Your task to perform on an android device: change the clock display to digital Image 0: 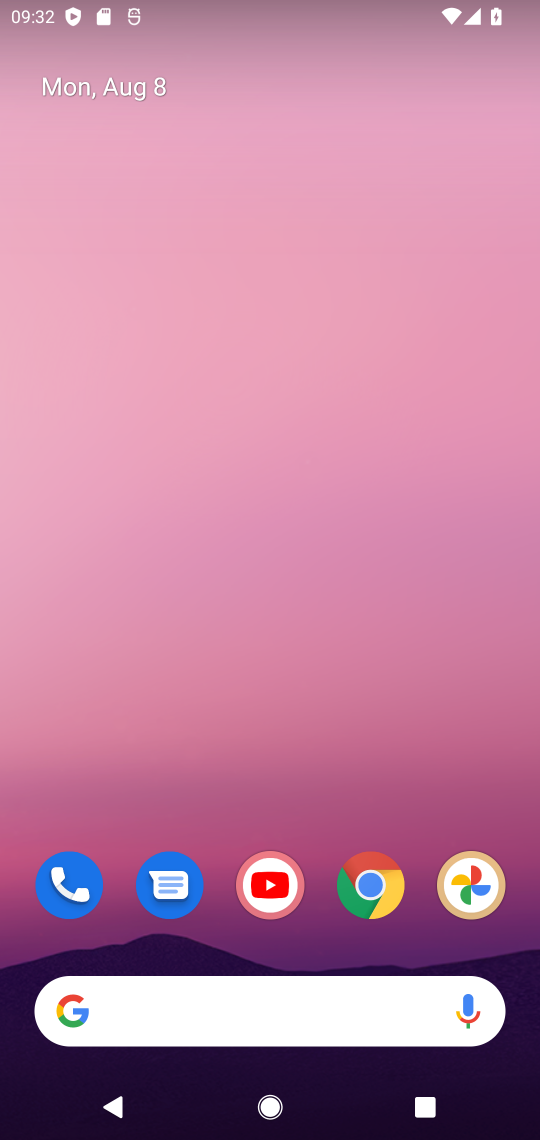
Step 0: drag from (233, 674) to (255, 228)
Your task to perform on an android device: change the clock display to digital Image 1: 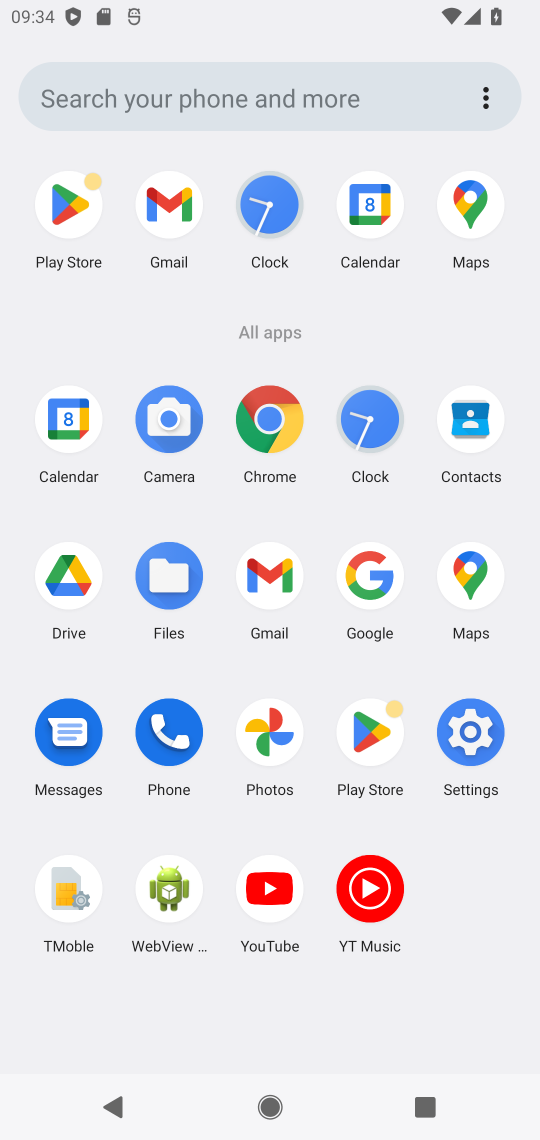
Step 1: click (387, 439)
Your task to perform on an android device: change the clock display to digital Image 2: 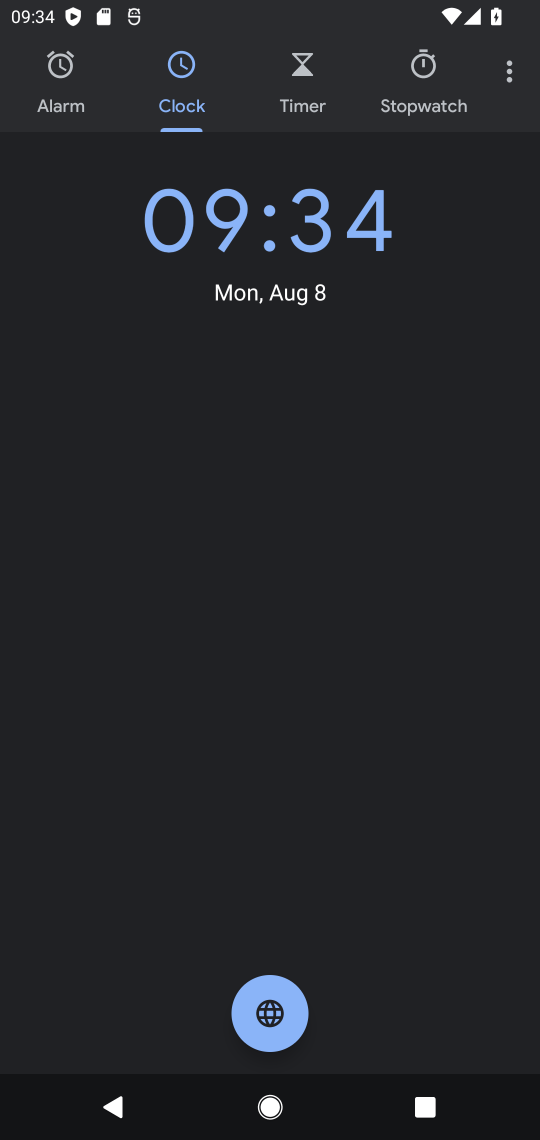
Step 2: click (500, 80)
Your task to perform on an android device: change the clock display to digital Image 3: 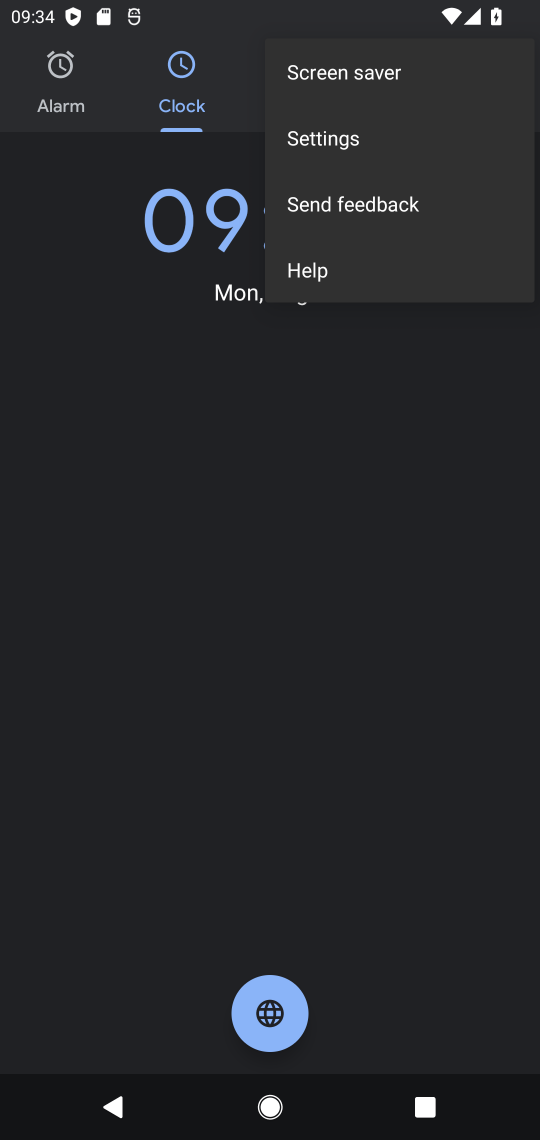
Step 3: click (359, 144)
Your task to perform on an android device: change the clock display to digital Image 4: 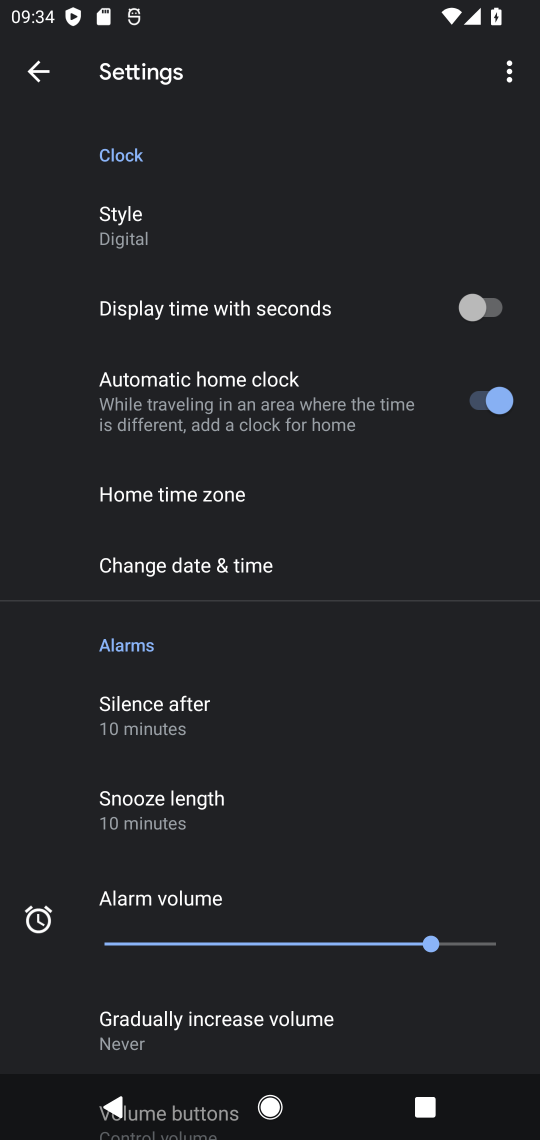
Step 4: click (147, 251)
Your task to perform on an android device: change the clock display to digital Image 5: 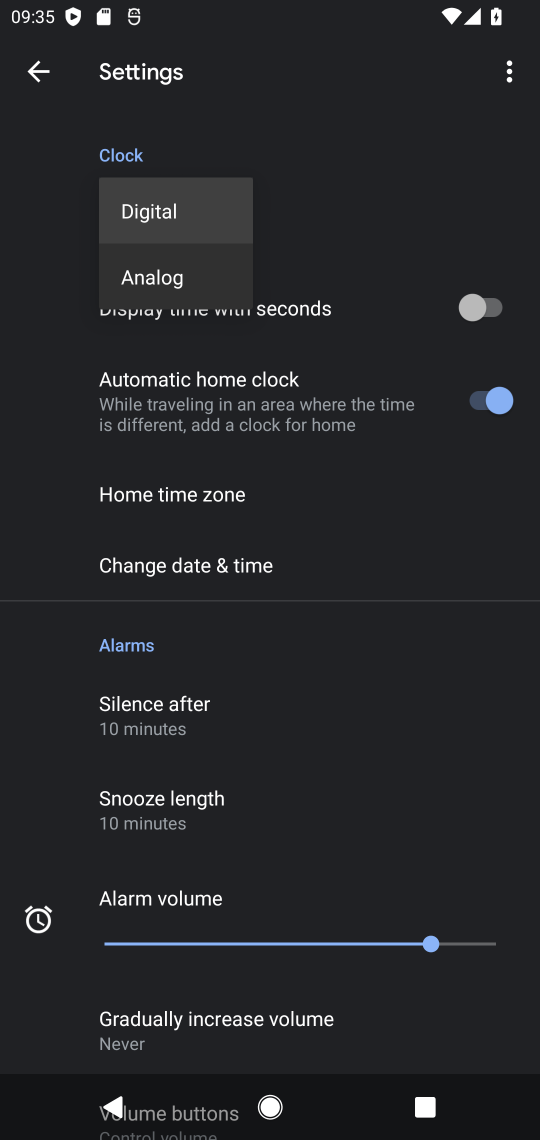
Step 5: click (147, 239)
Your task to perform on an android device: change the clock display to digital Image 6: 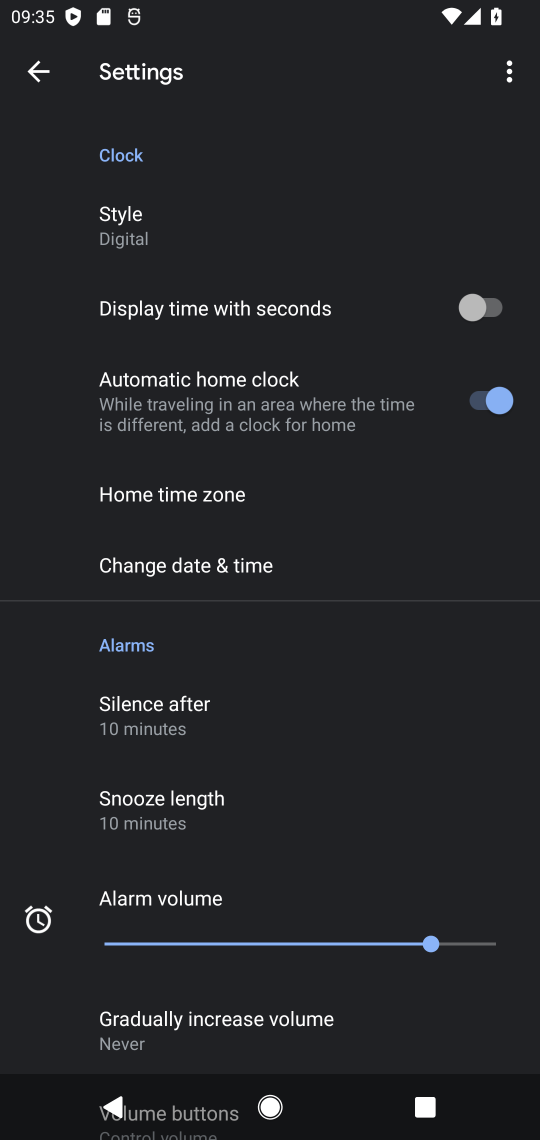
Step 6: press home button
Your task to perform on an android device: change the clock display to digital Image 7: 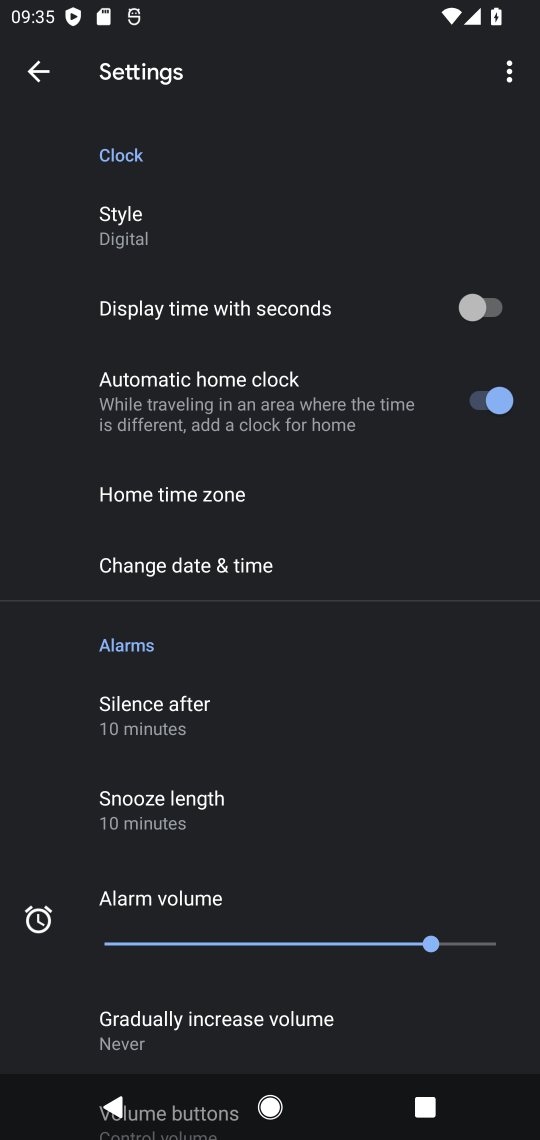
Step 7: press home button
Your task to perform on an android device: change the clock display to digital Image 8: 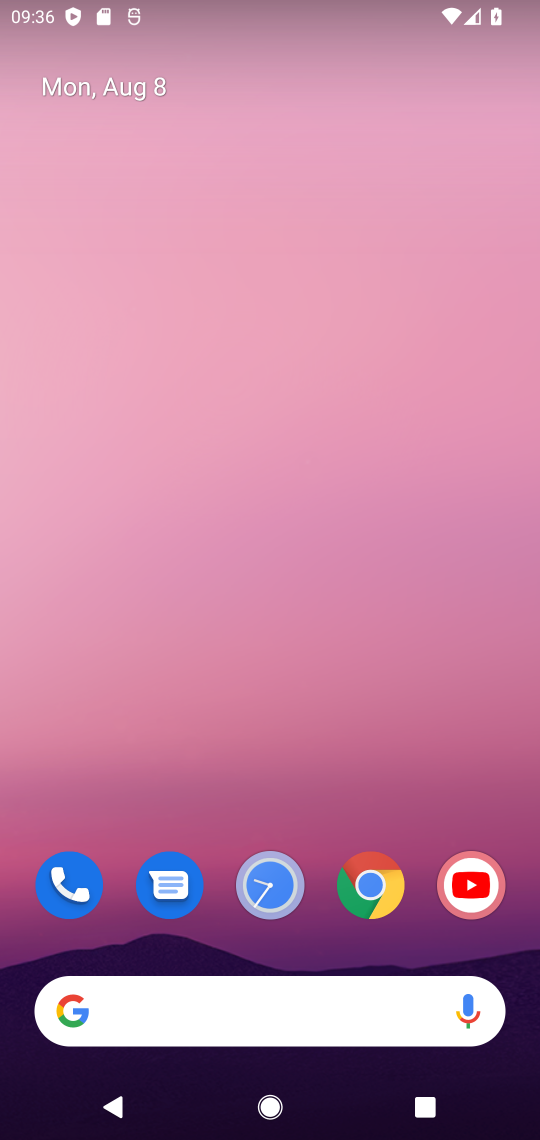
Step 8: drag from (201, 733) to (344, 27)
Your task to perform on an android device: change the clock display to digital Image 9: 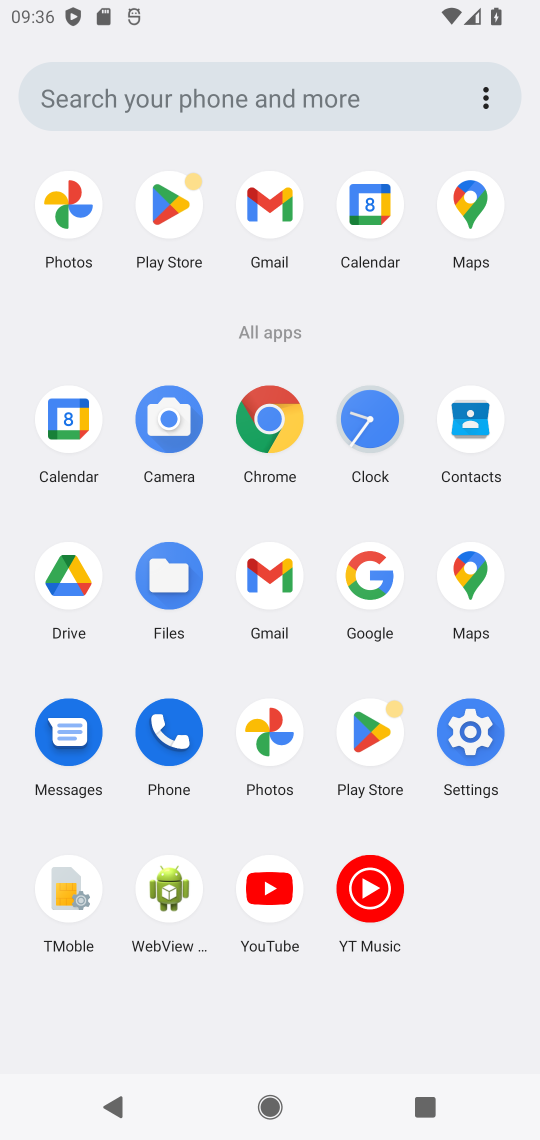
Step 9: click (376, 439)
Your task to perform on an android device: change the clock display to digital Image 10: 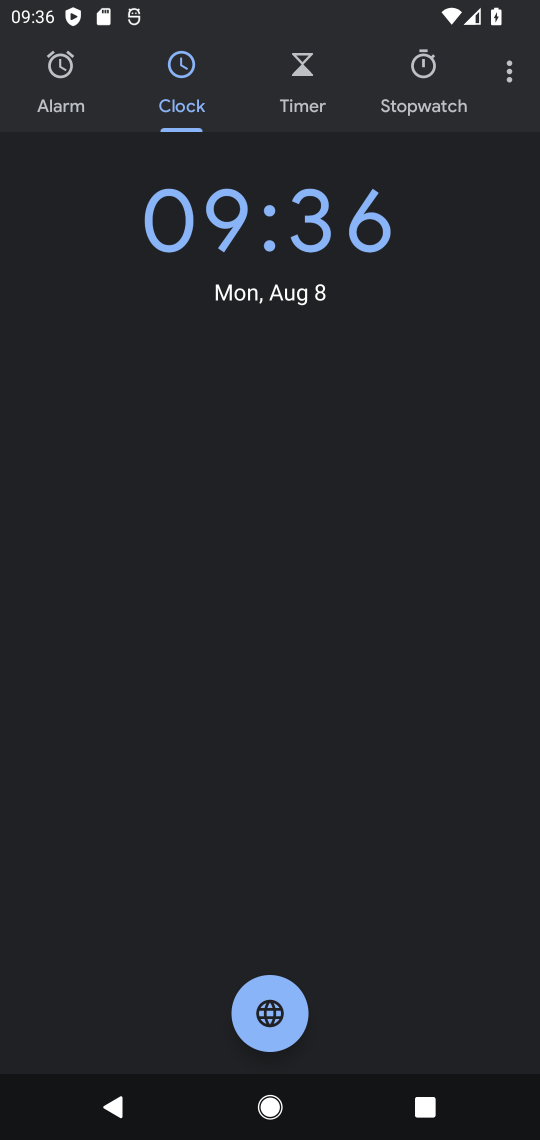
Step 10: click (498, 43)
Your task to perform on an android device: change the clock display to digital Image 11: 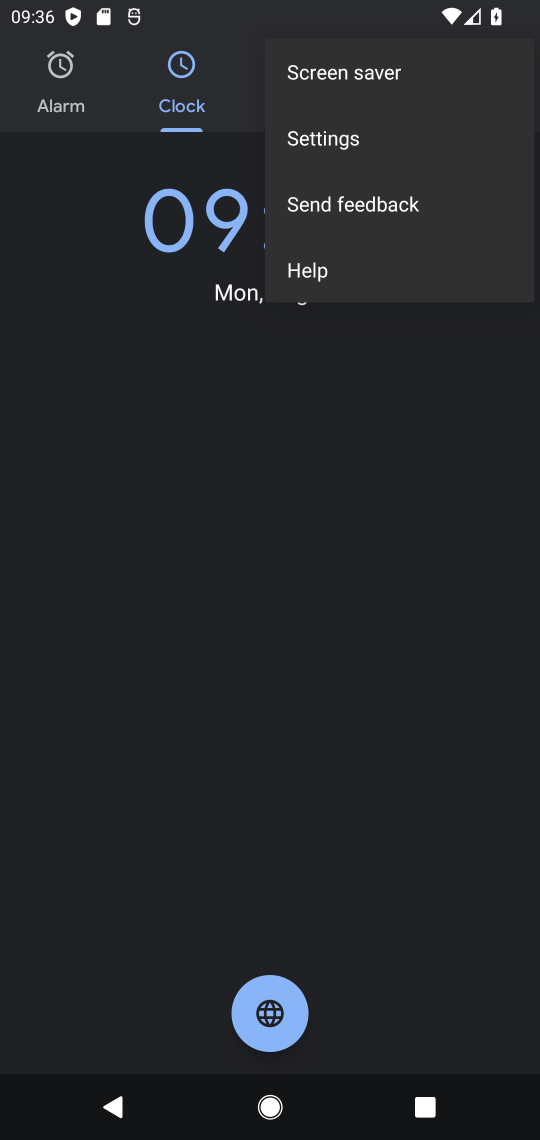
Step 11: click (352, 142)
Your task to perform on an android device: change the clock display to digital Image 12: 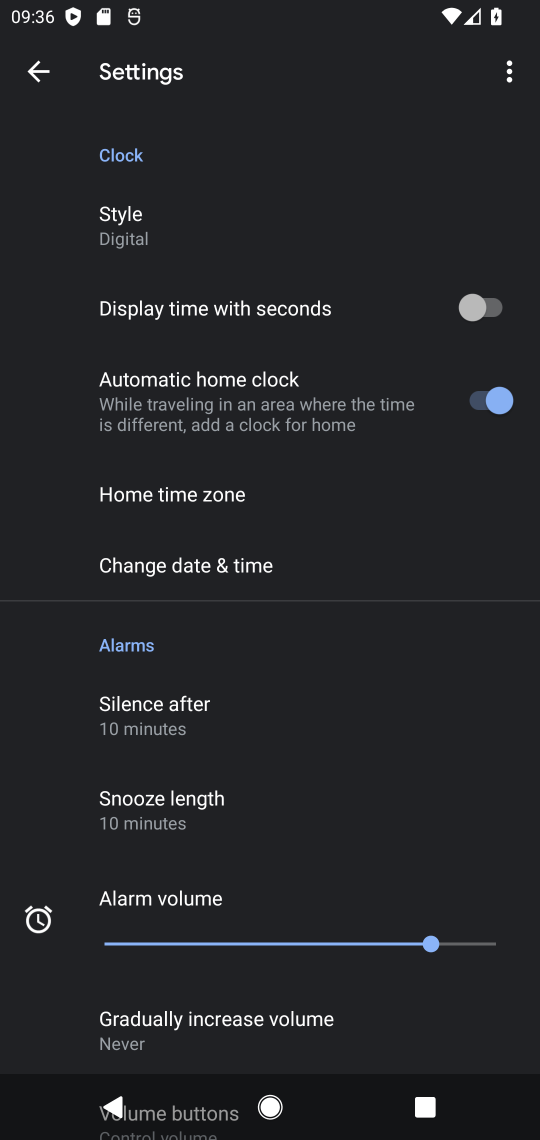
Step 12: task complete